Your task to perform on an android device: turn on data saver in the chrome app Image 0: 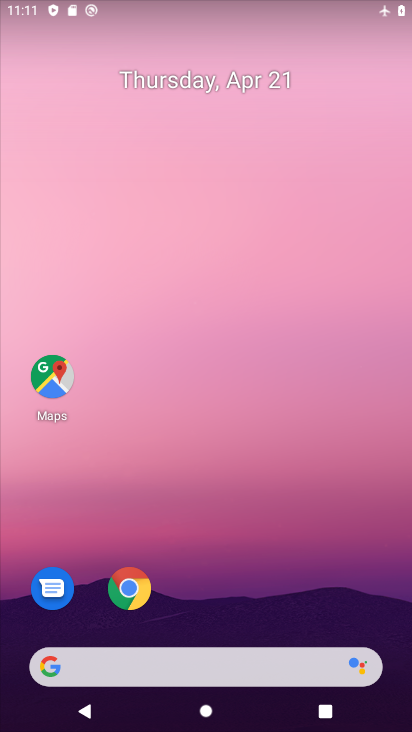
Step 0: click (219, 73)
Your task to perform on an android device: turn on data saver in the chrome app Image 1: 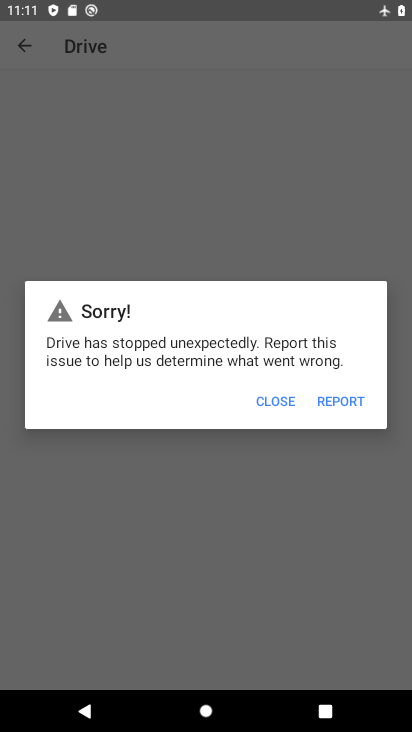
Step 1: press home button
Your task to perform on an android device: turn on data saver in the chrome app Image 2: 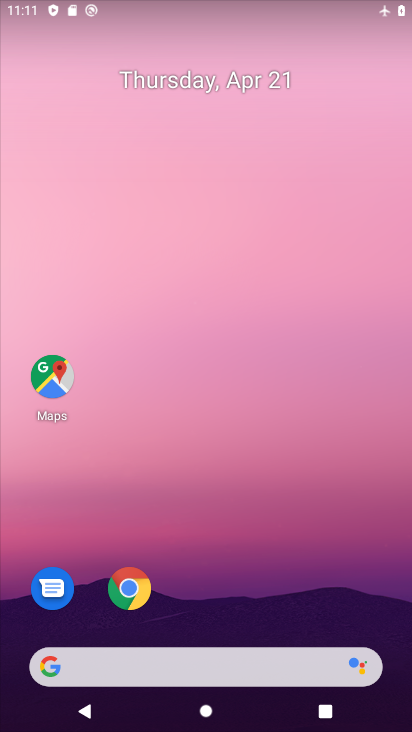
Step 2: click (126, 587)
Your task to perform on an android device: turn on data saver in the chrome app Image 3: 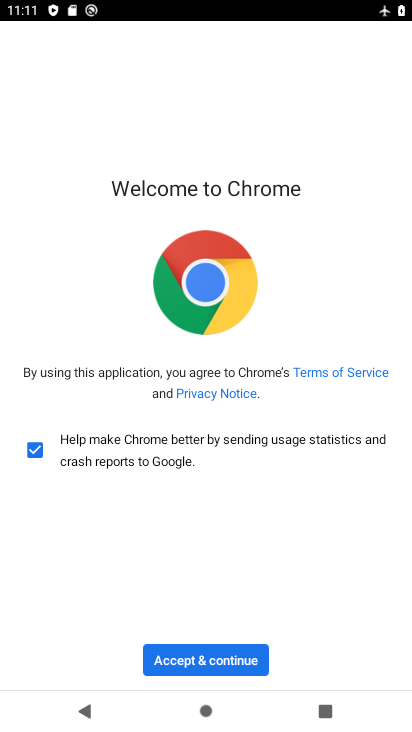
Step 3: click (186, 664)
Your task to perform on an android device: turn on data saver in the chrome app Image 4: 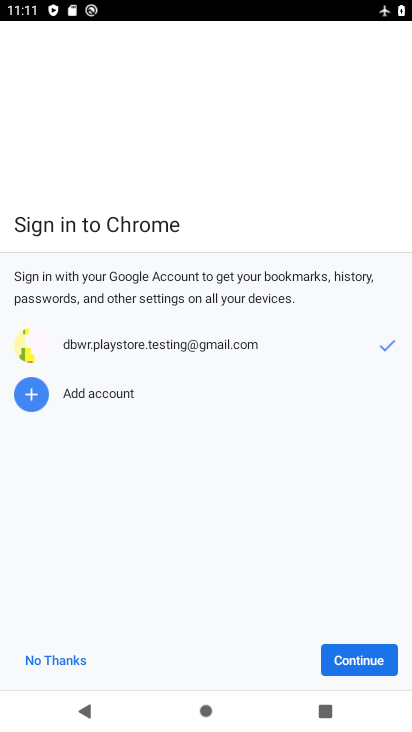
Step 4: click (331, 660)
Your task to perform on an android device: turn on data saver in the chrome app Image 5: 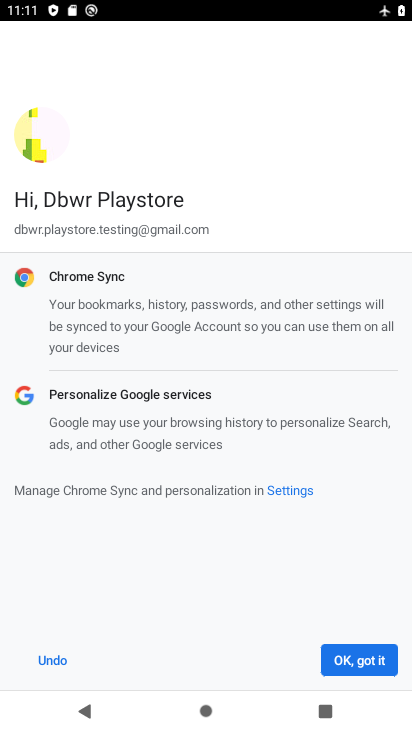
Step 5: click (331, 660)
Your task to perform on an android device: turn on data saver in the chrome app Image 6: 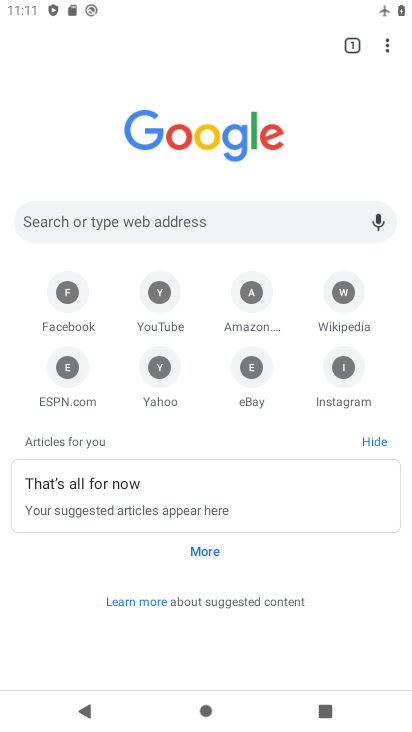
Step 6: click (389, 38)
Your task to perform on an android device: turn on data saver in the chrome app Image 7: 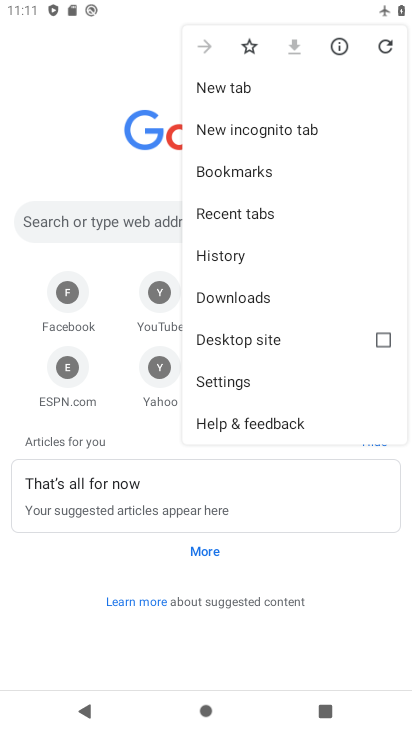
Step 7: click (232, 388)
Your task to perform on an android device: turn on data saver in the chrome app Image 8: 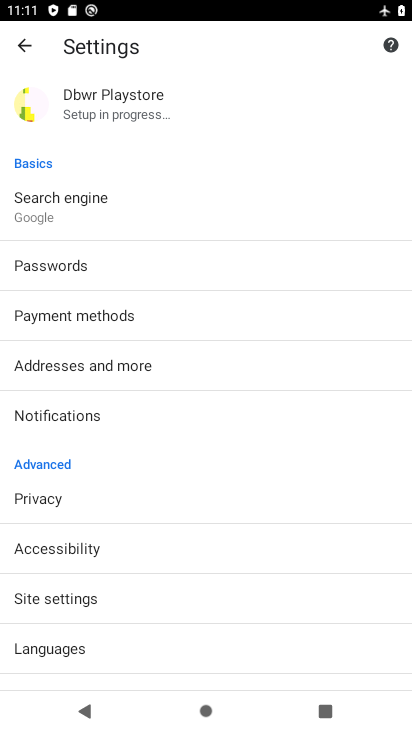
Step 8: drag from (161, 597) to (193, 228)
Your task to perform on an android device: turn on data saver in the chrome app Image 9: 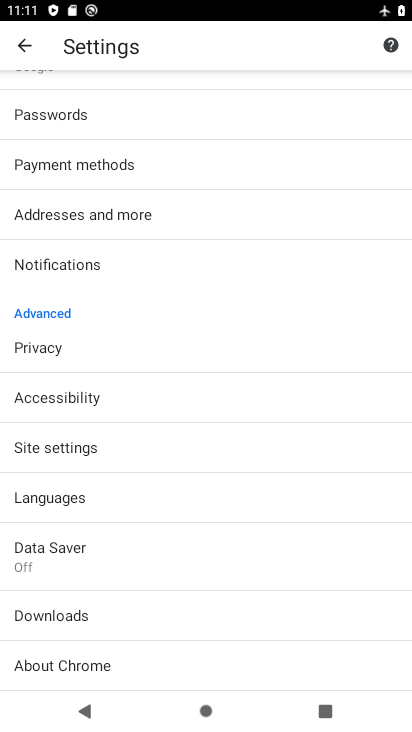
Step 9: click (67, 550)
Your task to perform on an android device: turn on data saver in the chrome app Image 10: 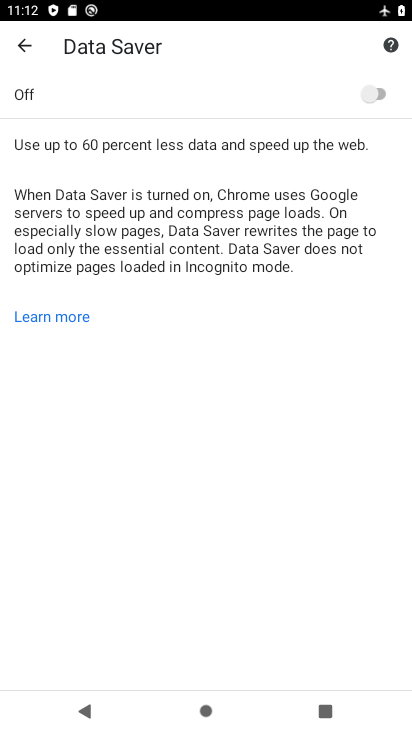
Step 10: click (374, 94)
Your task to perform on an android device: turn on data saver in the chrome app Image 11: 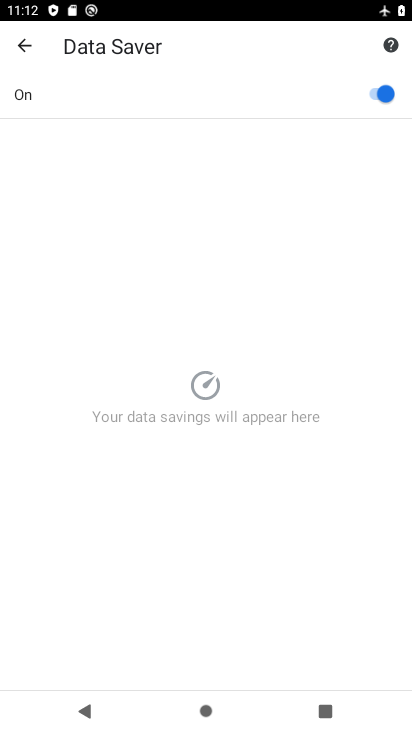
Step 11: task complete